Your task to perform on an android device: What's the weather today? Image 0: 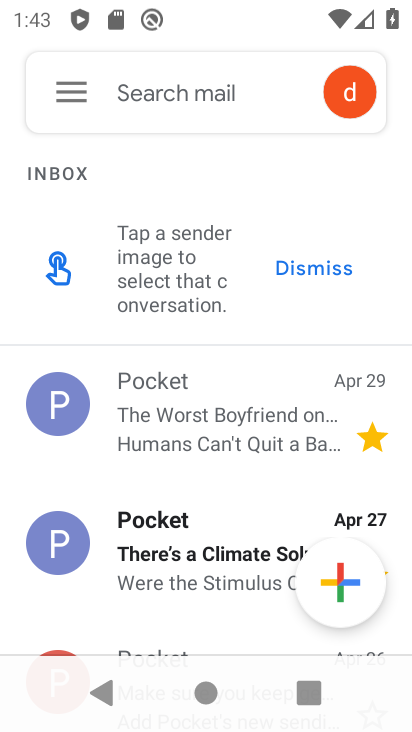
Step 0: press home button
Your task to perform on an android device: What's the weather today? Image 1: 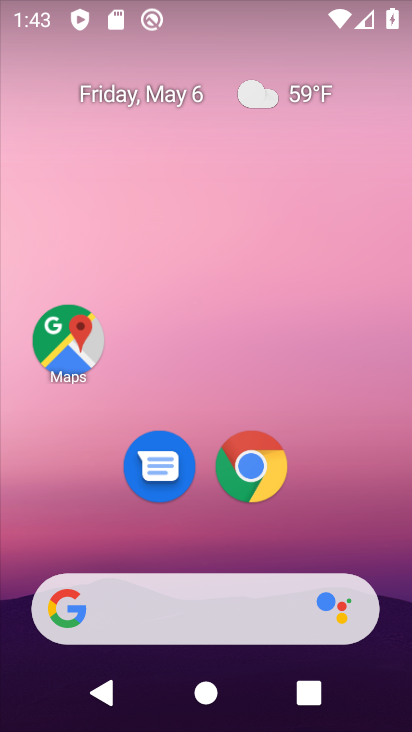
Step 1: click (287, 88)
Your task to perform on an android device: What's the weather today? Image 2: 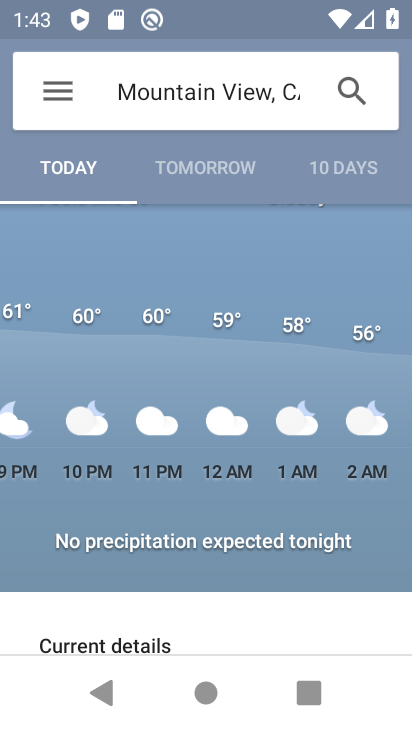
Step 2: task complete